Your task to perform on an android device: Open calendar and show me the second week of next month Image 0: 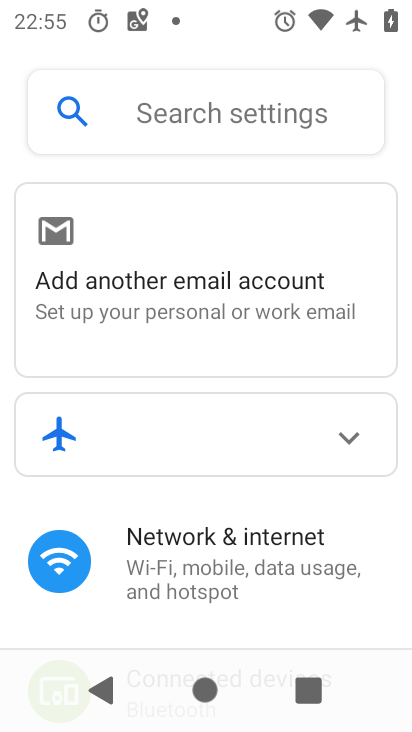
Step 0: press home button
Your task to perform on an android device: Open calendar and show me the second week of next month Image 1: 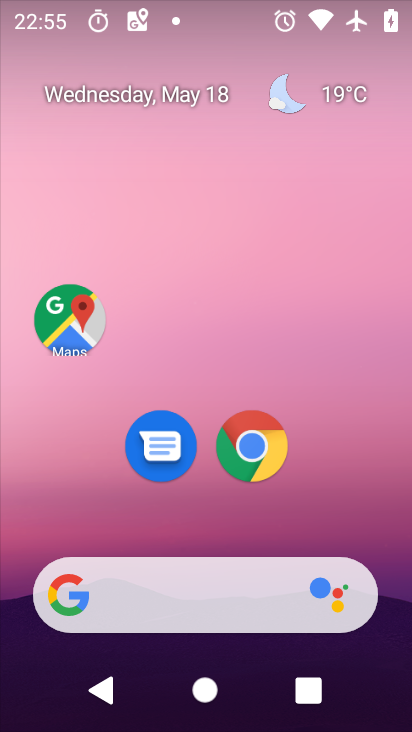
Step 1: drag from (218, 584) to (322, 215)
Your task to perform on an android device: Open calendar and show me the second week of next month Image 2: 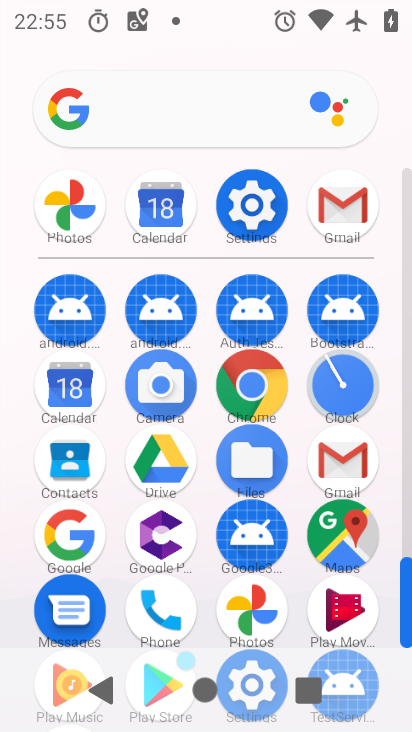
Step 2: click (168, 217)
Your task to perform on an android device: Open calendar and show me the second week of next month Image 3: 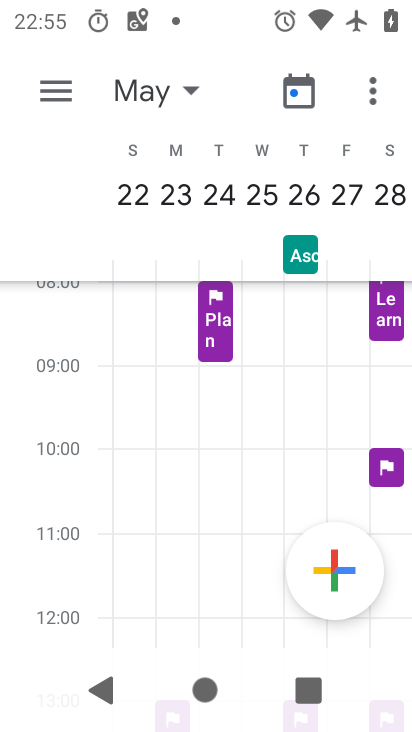
Step 3: click (149, 88)
Your task to perform on an android device: Open calendar and show me the second week of next month Image 4: 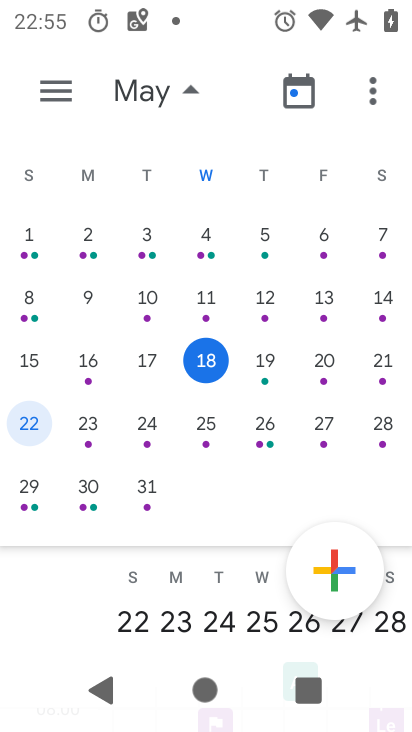
Step 4: drag from (360, 330) to (32, 326)
Your task to perform on an android device: Open calendar and show me the second week of next month Image 5: 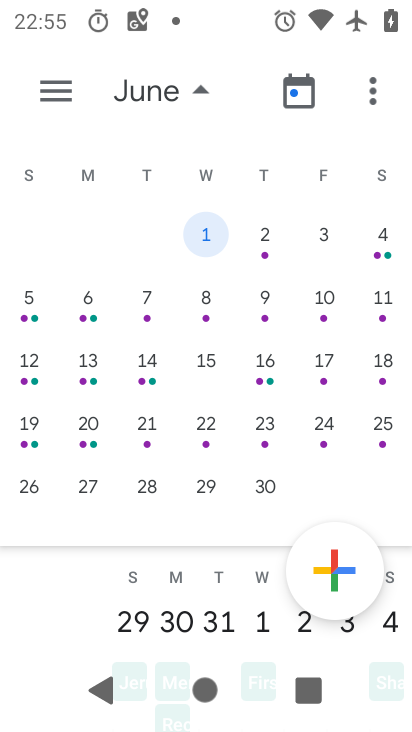
Step 5: click (32, 295)
Your task to perform on an android device: Open calendar and show me the second week of next month Image 6: 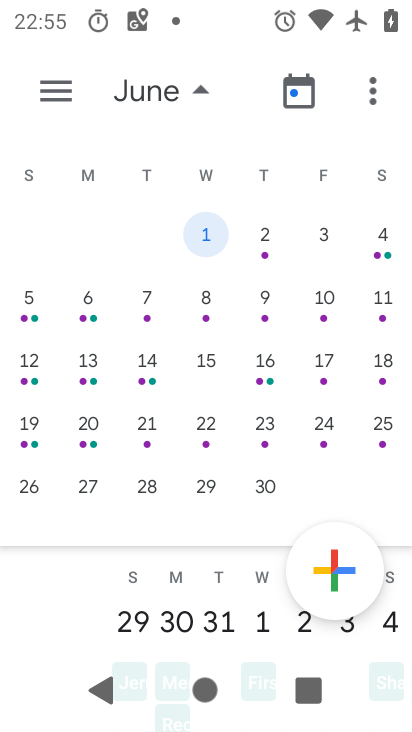
Step 6: click (30, 306)
Your task to perform on an android device: Open calendar and show me the second week of next month Image 7: 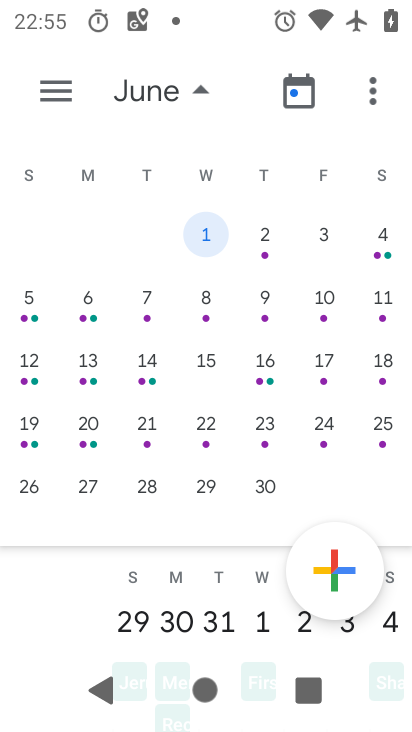
Step 7: click (33, 302)
Your task to perform on an android device: Open calendar and show me the second week of next month Image 8: 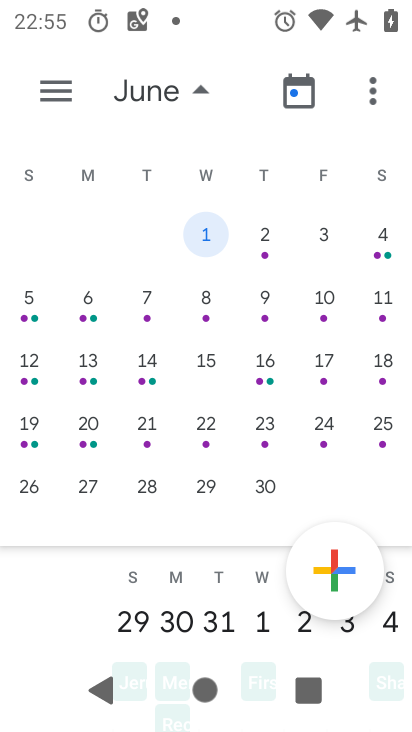
Step 8: click (41, 300)
Your task to perform on an android device: Open calendar and show me the second week of next month Image 9: 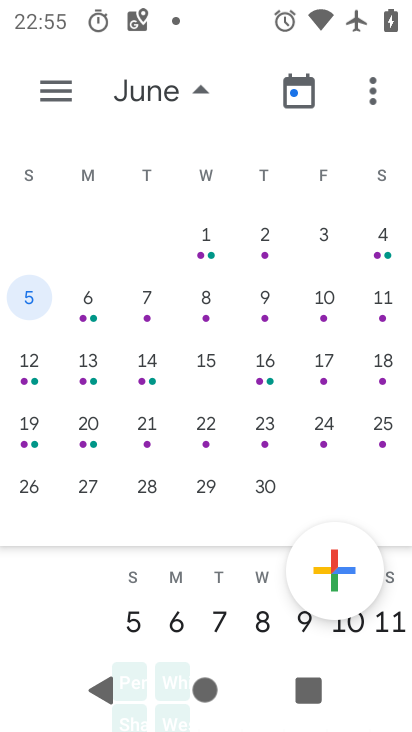
Step 9: click (65, 83)
Your task to perform on an android device: Open calendar and show me the second week of next month Image 10: 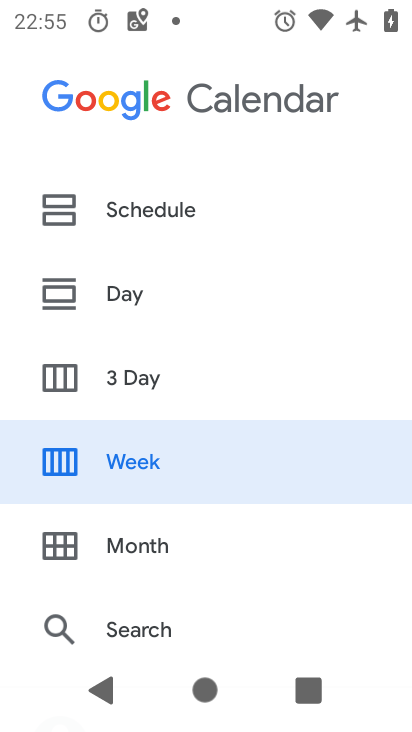
Step 10: click (135, 454)
Your task to perform on an android device: Open calendar and show me the second week of next month Image 11: 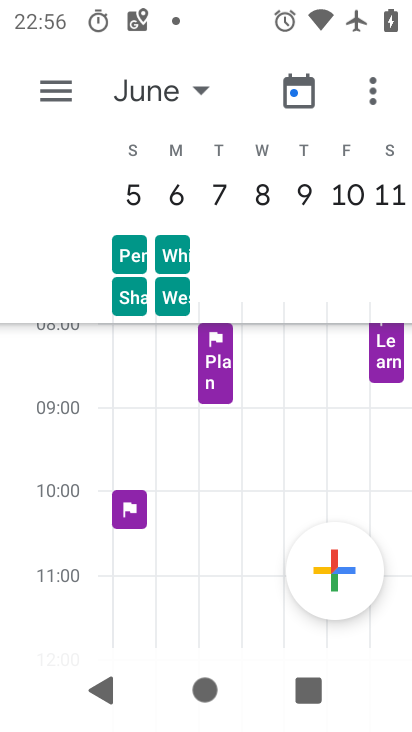
Step 11: task complete